Your task to perform on an android device: toggle location history Image 0: 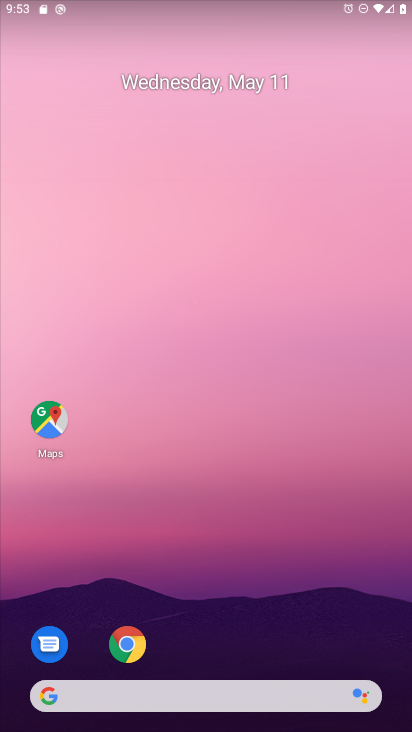
Step 0: drag from (222, 573) to (117, 78)
Your task to perform on an android device: toggle location history Image 1: 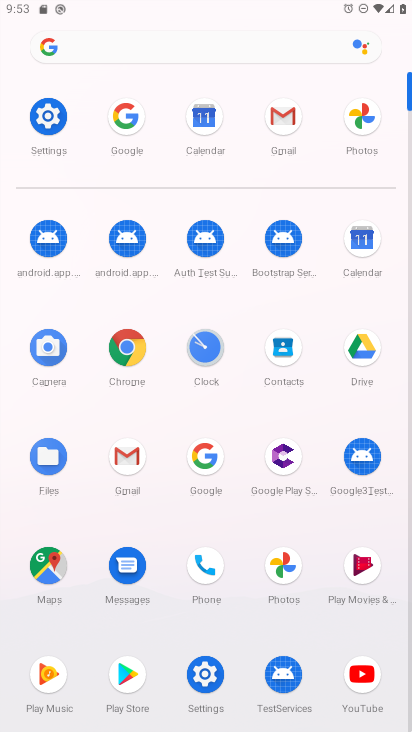
Step 1: click (48, 112)
Your task to perform on an android device: toggle location history Image 2: 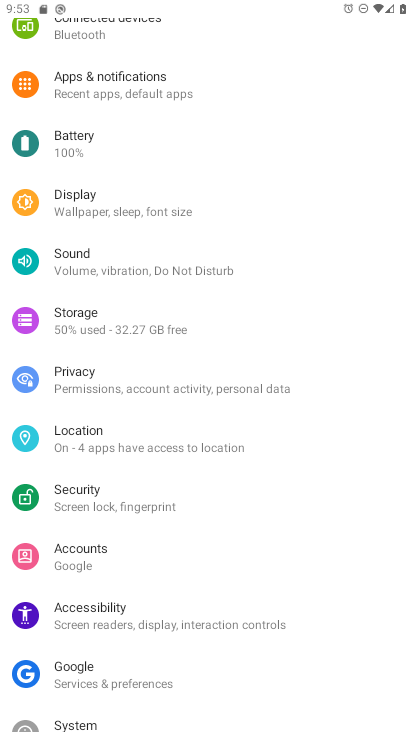
Step 2: drag from (204, 568) to (190, 101)
Your task to perform on an android device: toggle location history Image 3: 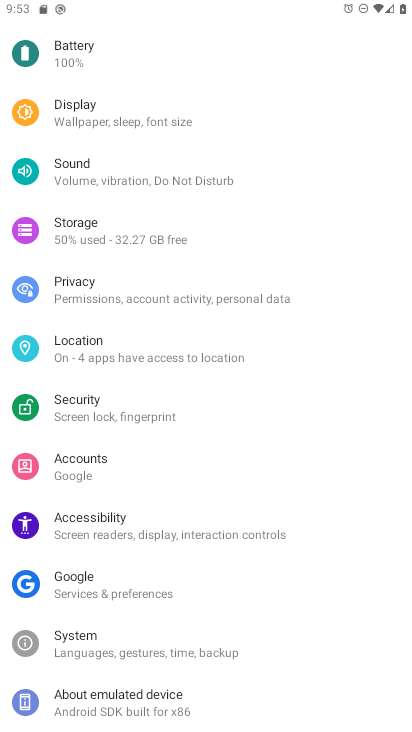
Step 3: click (79, 339)
Your task to perform on an android device: toggle location history Image 4: 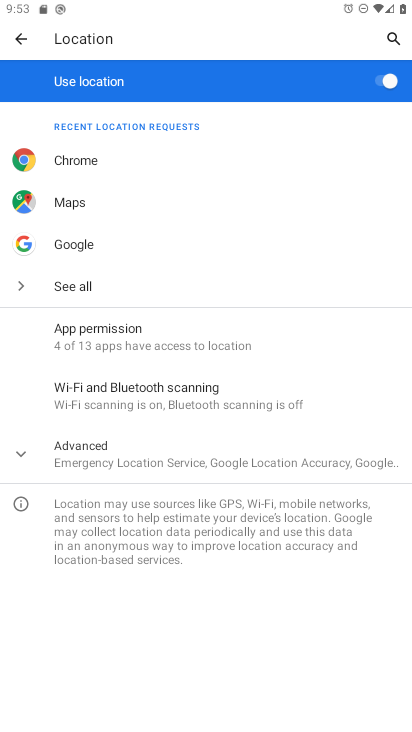
Step 4: click (57, 453)
Your task to perform on an android device: toggle location history Image 5: 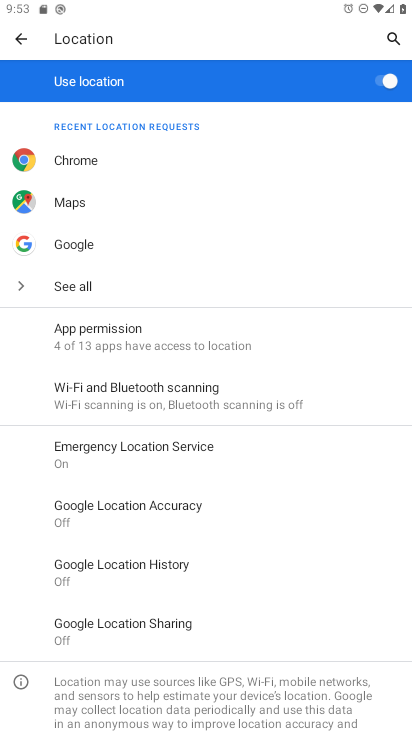
Step 5: click (149, 570)
Your task to perform on an android device: toggle location history Image 6: 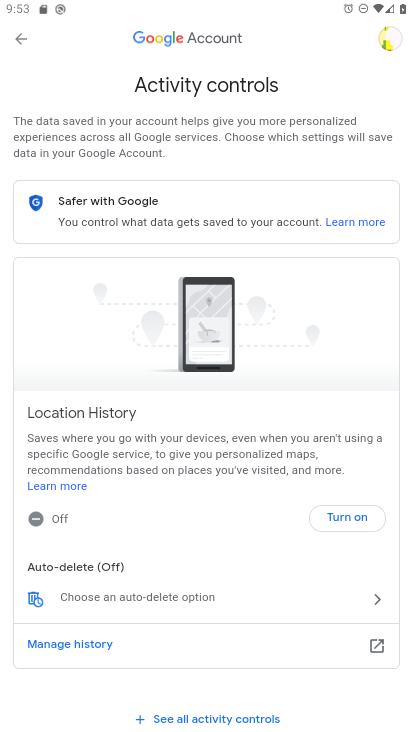
Step 6: click (344, 515)
Your task to perform on an android device: toggle location history Image 7: 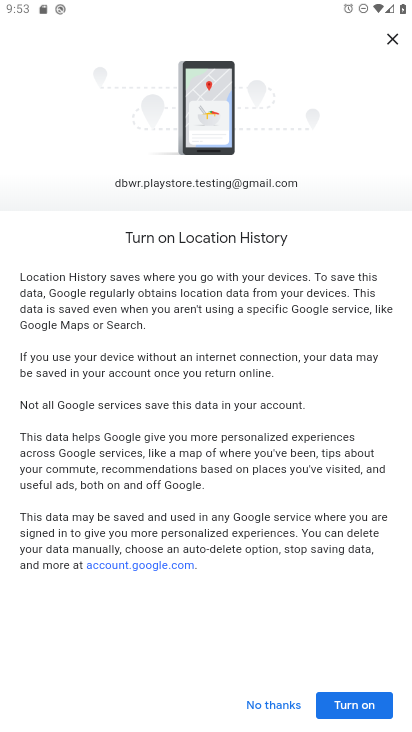
Step 7: click (359, 705)
Your task to perform on an android device: toggle location history Image 8: 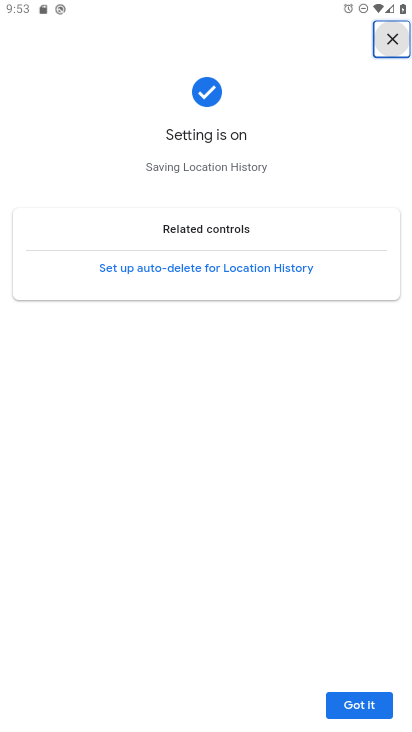
Step 8: click (352, 710)
Your task to perform on an android device: toggle location history Image 9: 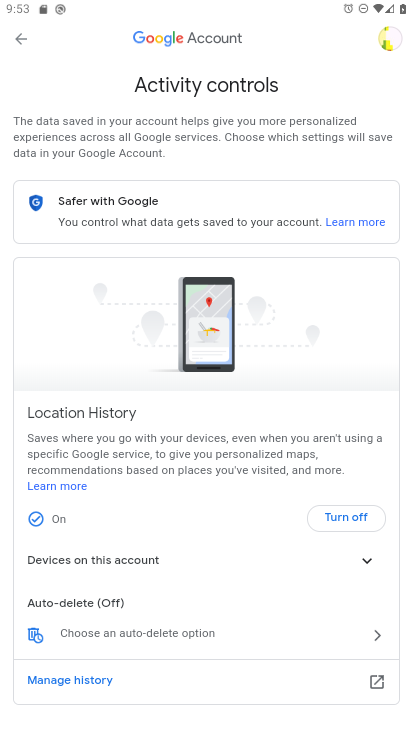
Step 9: task complete